Your task to perform on an android device: Go to internet settings Image 0: 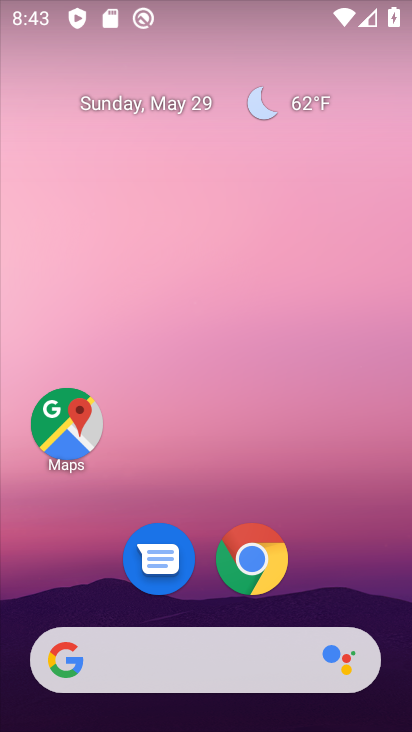
Step 0: drag from (313, 399) to (296, 194)
Your task to perform on an android device: Go to internet settings Image 1: 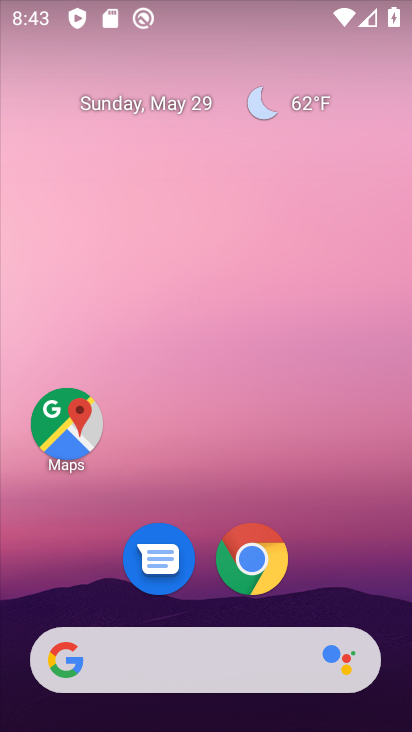
Step 1: drag from (315, 550) to (305, 163)
Your task to perform on an android device: Go to internet settings Image 2: 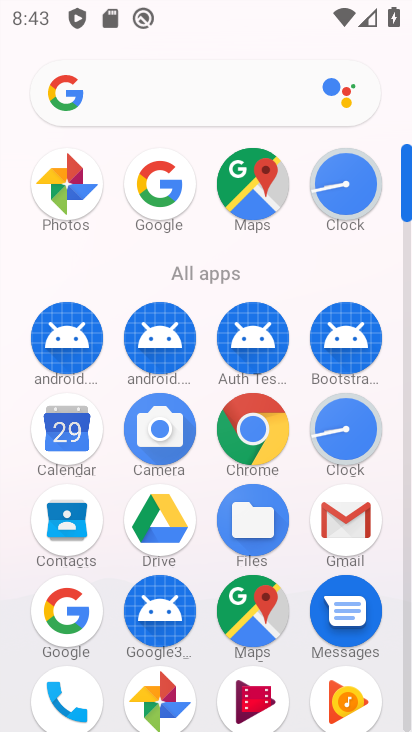
Step 2: drag from (302, 585) to (331, 241)
Your task to perform on an android device: Go to internet settings Image 3: 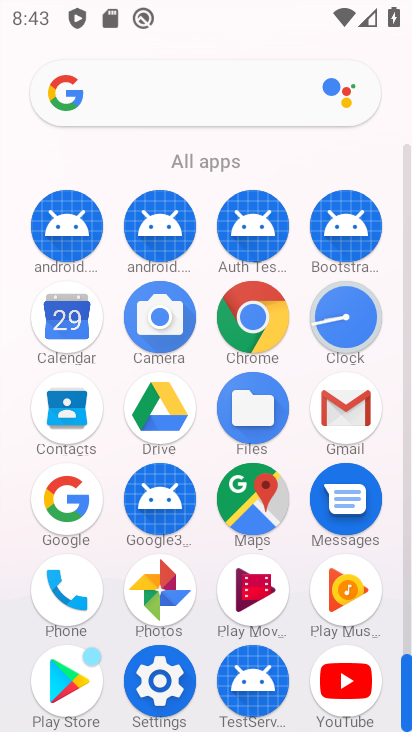
Step 3: click (153, 669)
Your task to perform on an android device: Go to internet settings Image 4: 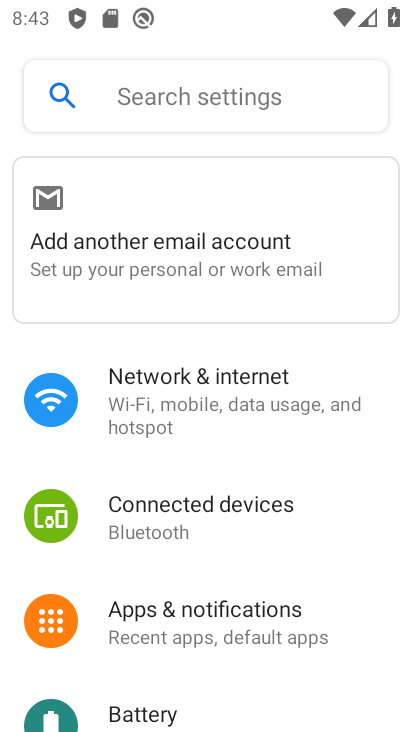
Step 4: click (182, 387)
Your task to perform on an android device: Go to internet settings Image 5: 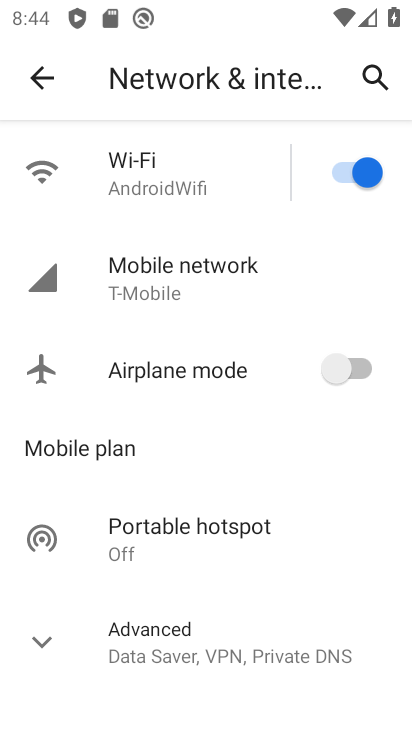
Step 5: task complete